Your task to perform on an android device: Search for sushi restaurants on Maps Image 0: 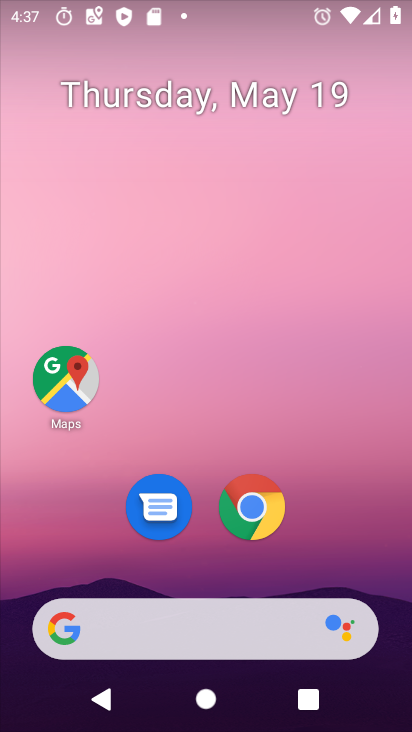
Step 0: click (74, 379)
Your task to perform on an android device: Search for sushi restaurants on Maps Image 1: 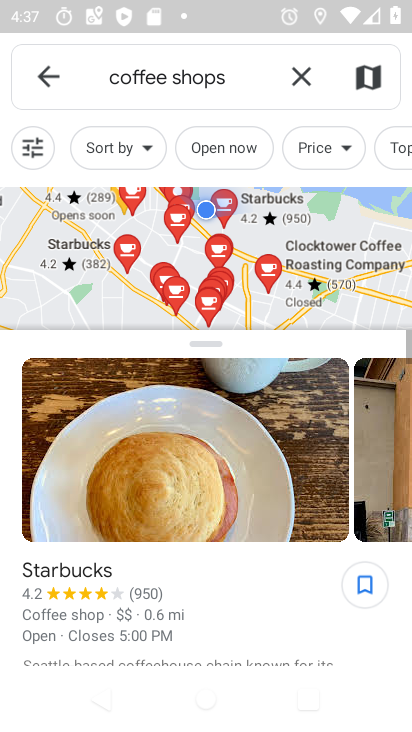
Step 1: click (300, 70)
Your task to perform on an android device: Search for sushi restaurants on Maps Image 2: 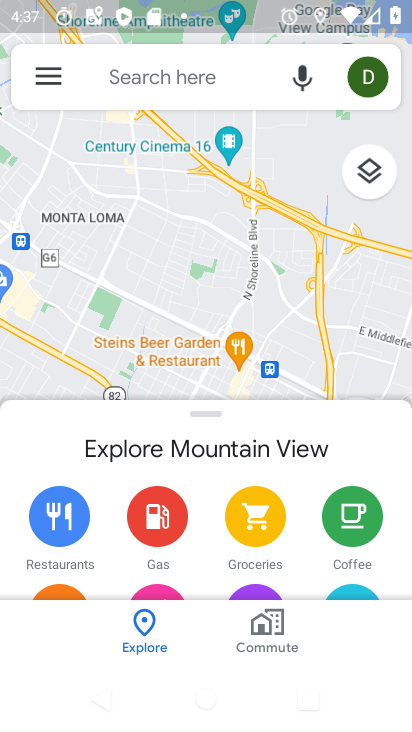
Step 2: click (102, 77)
Your task to perform on an android device: Search for sushi restaurants on Maps Image 3: 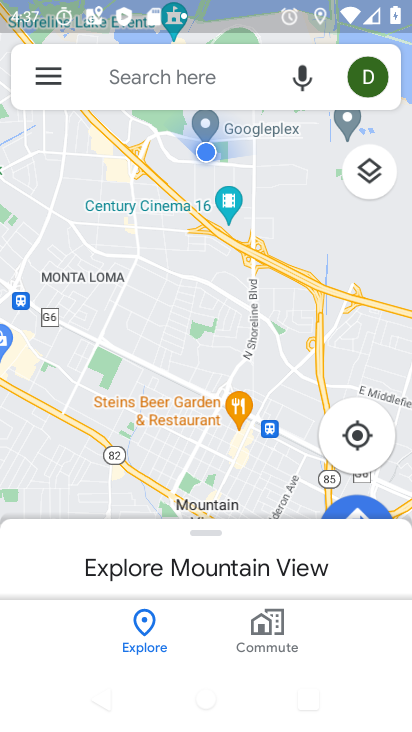
Step 3: type "sushi restaurants"
Your task to perform on an android device: Search for sushi restaurants on Maps Image 4: 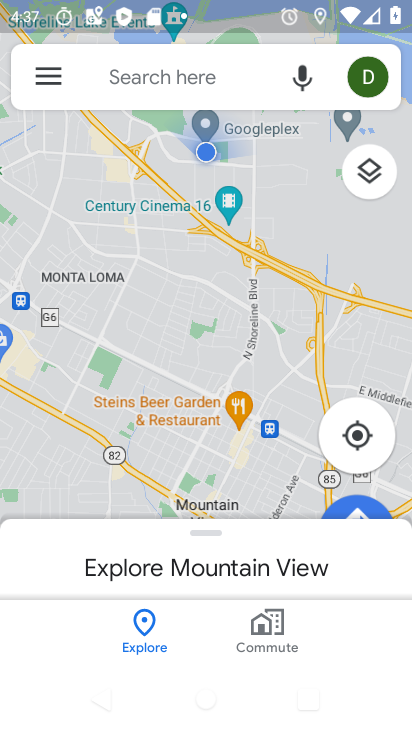
Step 4: click (117, 76)
Your task to perform on an android device: Search for sushi restaurants on Maps Image 5: 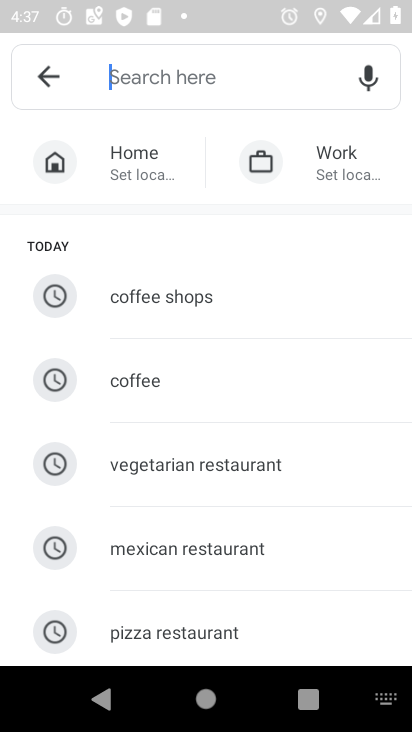
Step 5: type "sushi restaurants"
Your task to perform on an android device: Search for sushi restaurants on Maps Image 6: 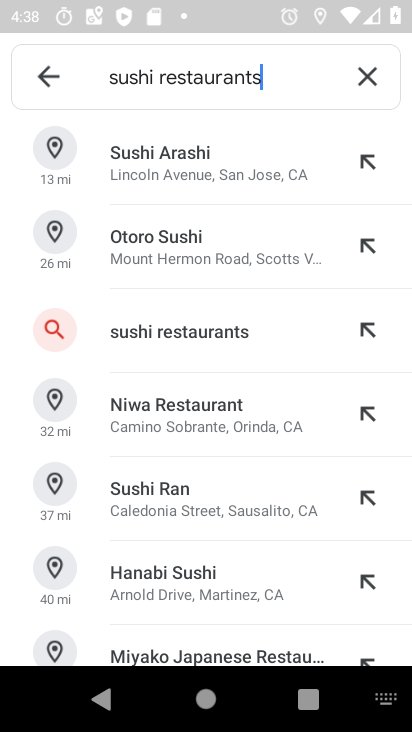
Step 6: click (174, 330)
Your task to perform on an android device: Search for sushi restaurants on Maps Image 7: 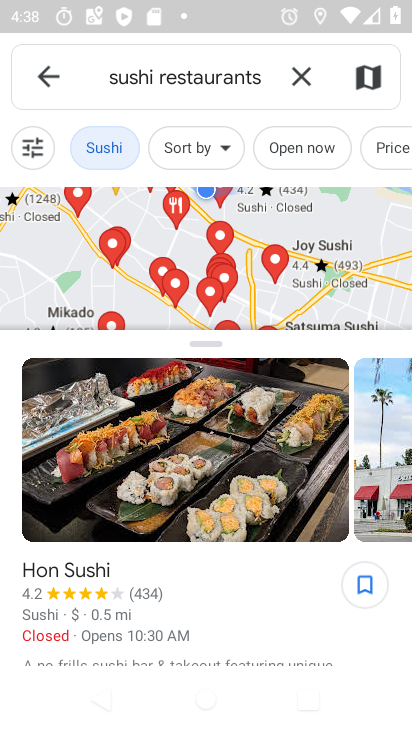
Step 7: task complete